Your task to perform on an android device: allow cookies in the chrome app Image 0: 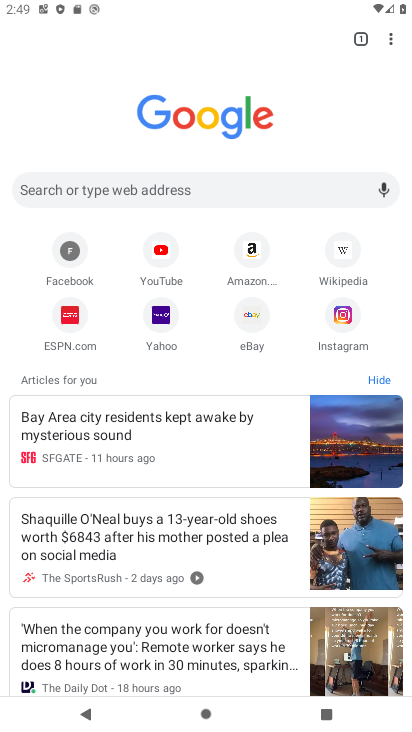
Step 0: click (395, 41)
Your task to perform on an android device: allow cookies in the chrome app Image 1: 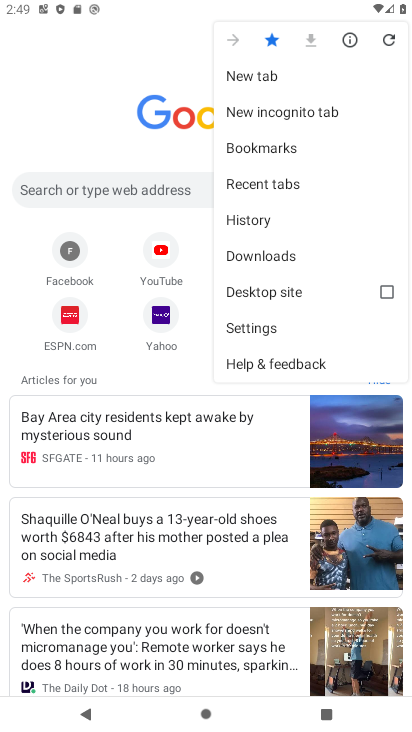
Step 1: click (311, 324)
Your task to perform on an android device: allow cookies in the chrome app Image 2: 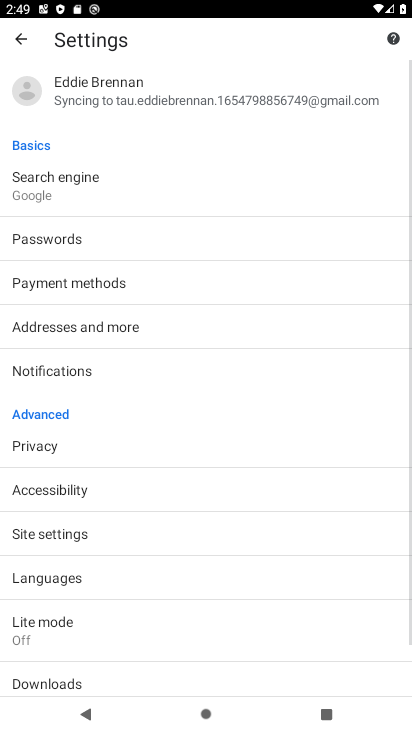
Step 2: drag from (183, 574) to (222, 188)
Your task to perform on an android device: allow cookies in the chrome app Image 3: 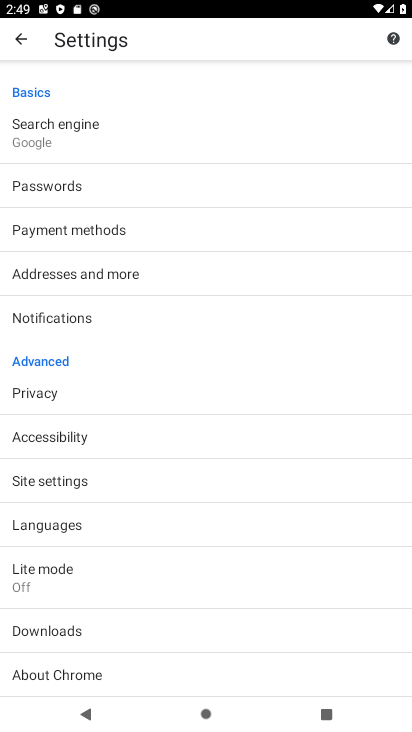
Step 3: drag from (231, 613) to (221, 311)
Your task to perform on an android device: allow cookies in the chrome app Image 4: 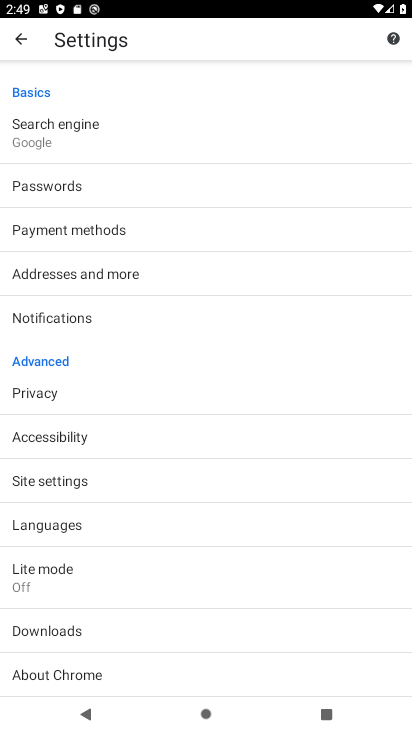
Step 4: click (135, 478)
Your task to perform on an android device: allow cookies in the chrome app Image 5: 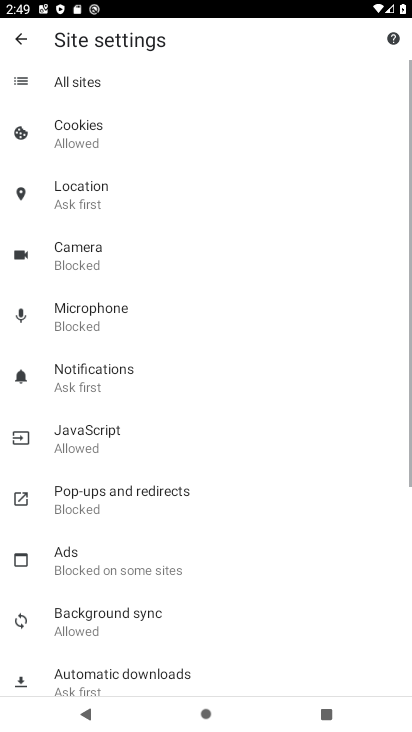
Step 5: click (255, 152)
Your task to perform on an android device: allow cookies in the chrome app Image 6: 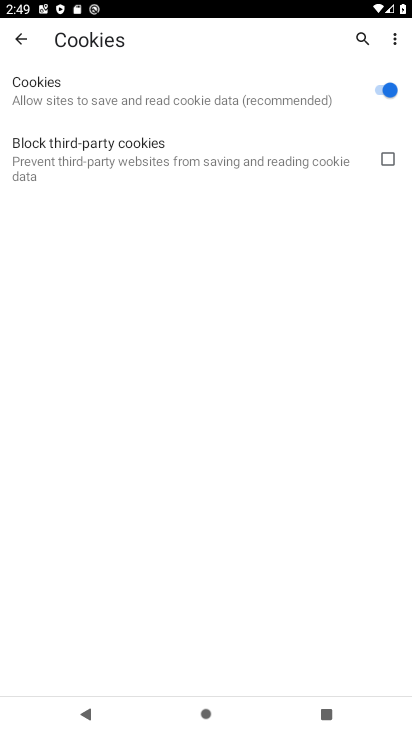
Step 6: task complete